Your task to perform on an android device: turn off airplane mode Image 0: 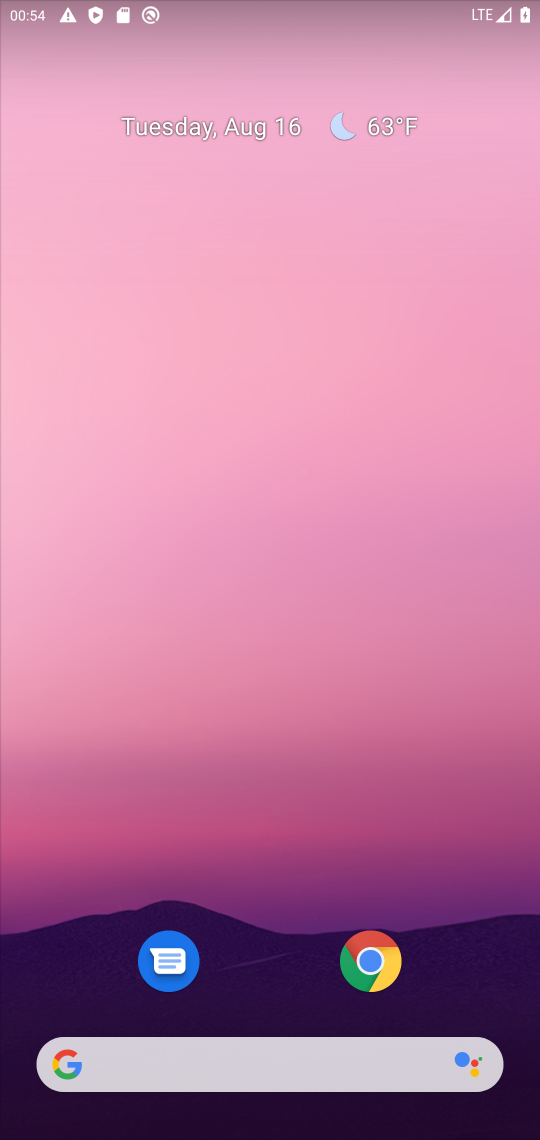
Step 0: press home button
Your task to perform on an android device: turn off airplane mode Image 1: 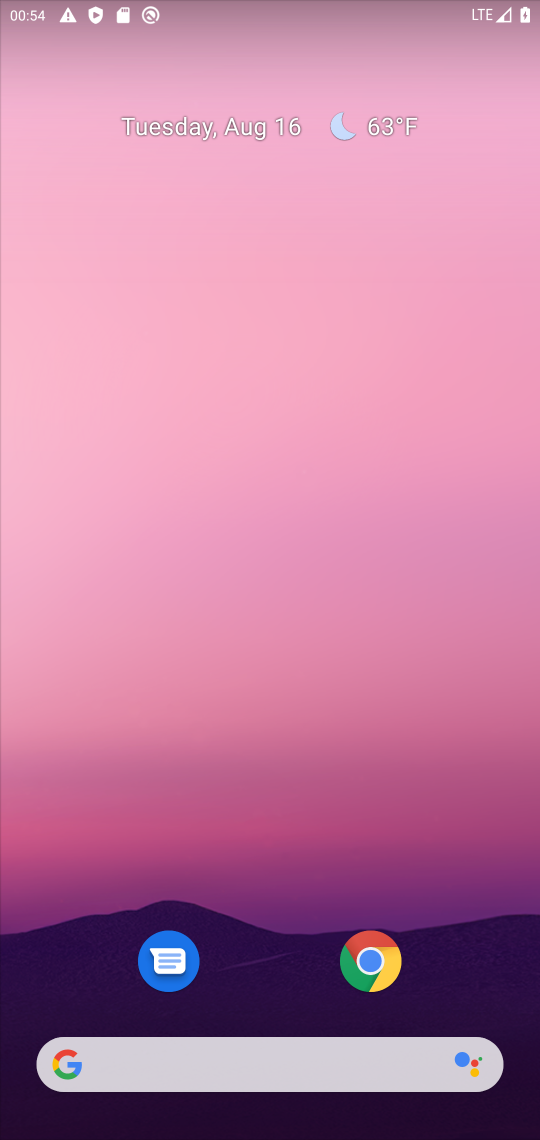
Step 1: task complete